Your task to perform on an android device: Open privacy settings Image 0: 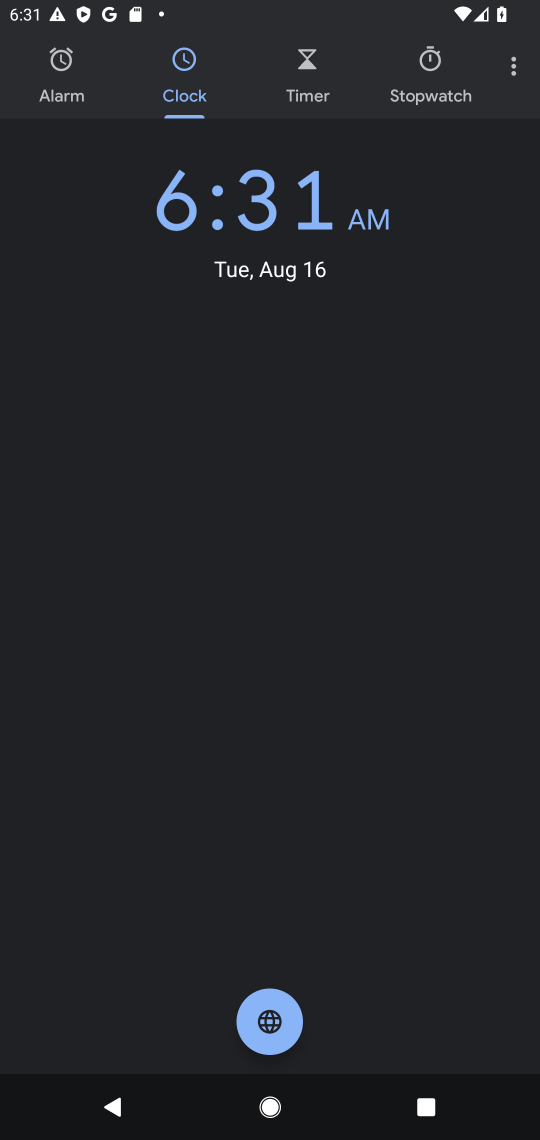
Step 0: press home button
Your task to perform on an android device: Open privacy settings Image 1: 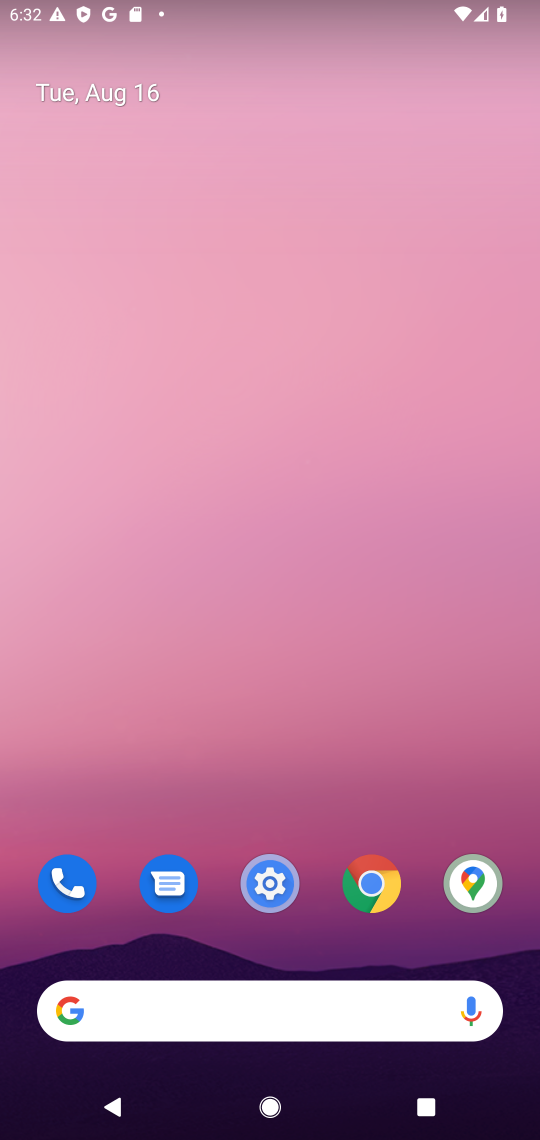
Step 1: click (268, 885)
Your task to perform on an android device: Open privacy settings Image 2: 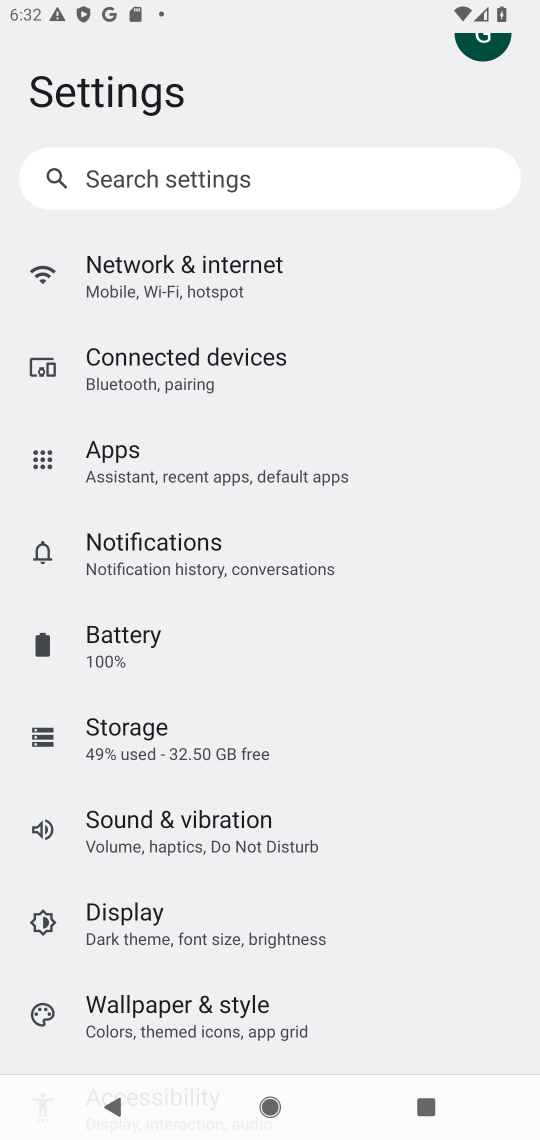
Step 2: drag from (204, 786) to (276, 638)
Your task to perform on an android device: Open privacy settings Image 3: 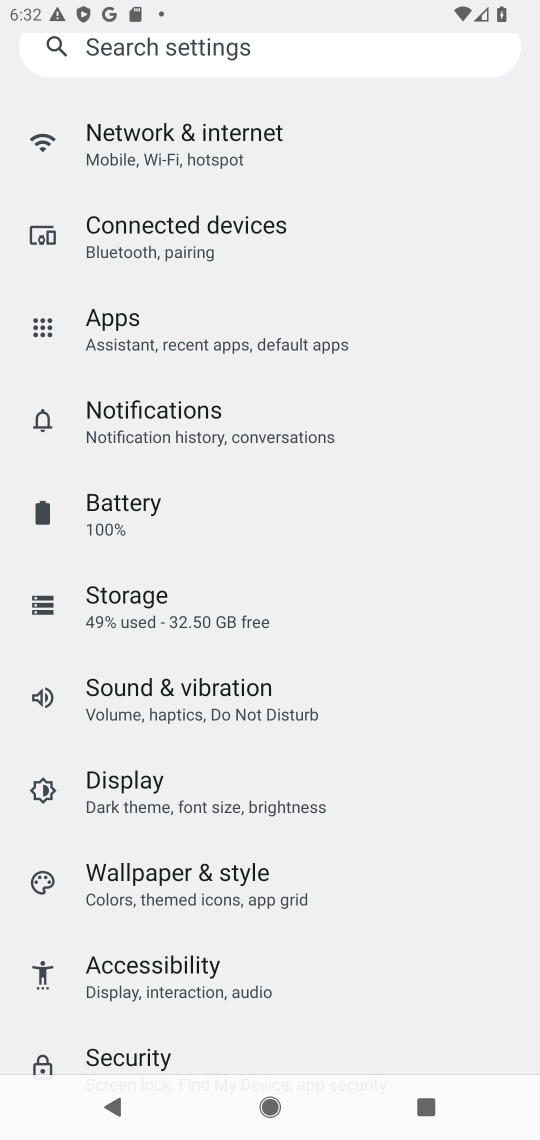
Step 3: drag from (172, 911) to (253, 705)
Your task to perform on an android device: Open privacy settings Image 4: 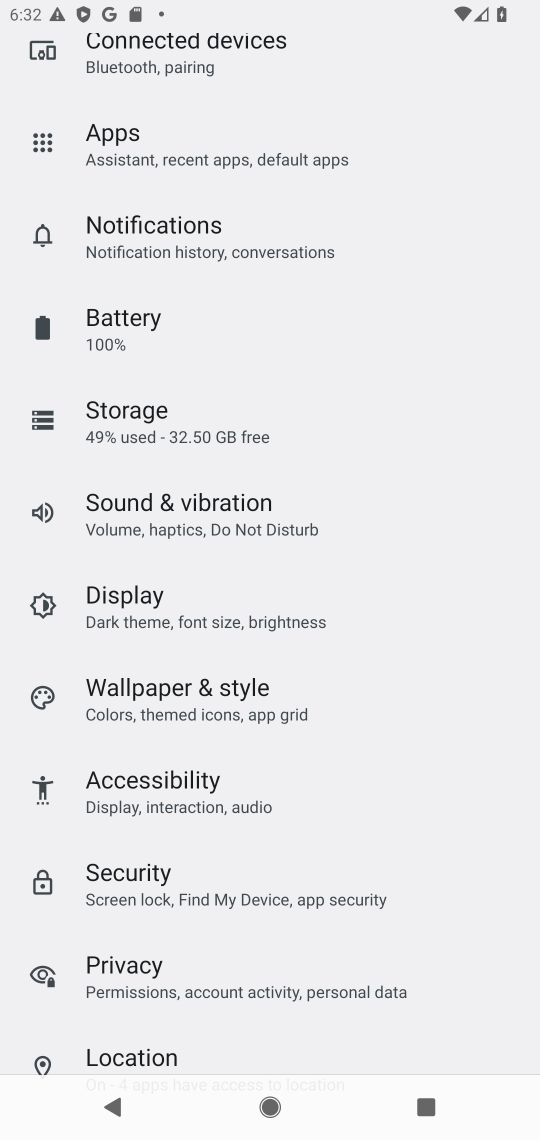
Step 4: drag from (204, 980) to (275, 831)
Your task to perform on an android device: Open privacy settings Image 5: 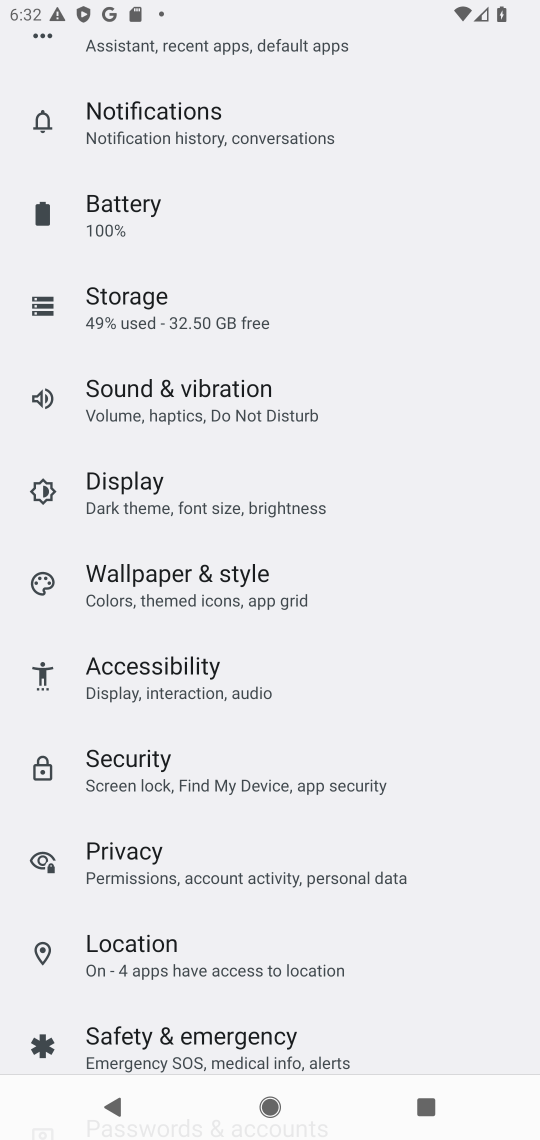
Step 5: click (236, 869)
Your task to perform on an android device: Open privacy settings Image 6: 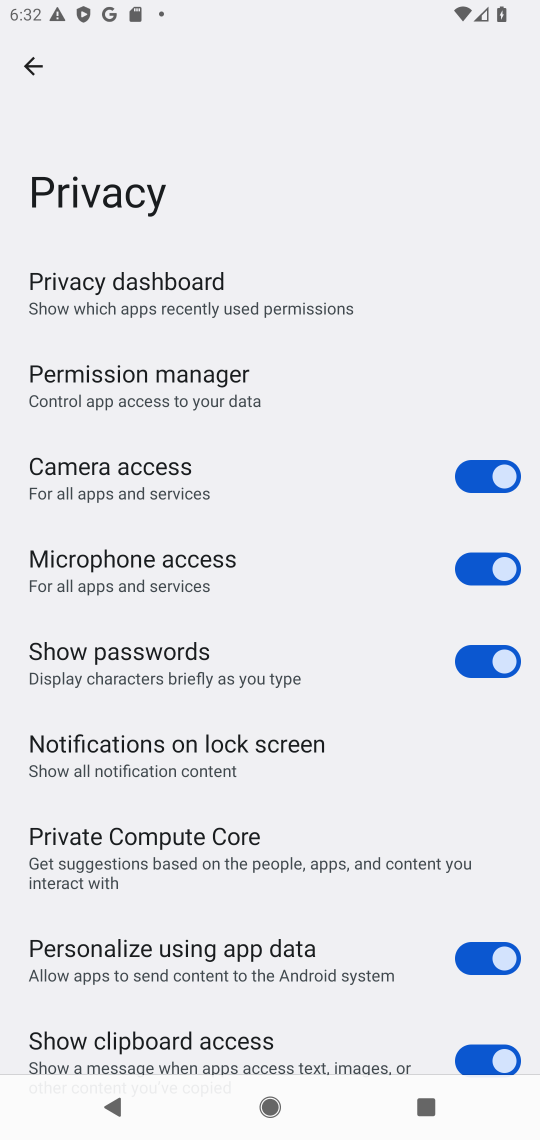
Step 6: task complete